Your task to perform on an android device: Play the last video I watched on Youtube Image 0: 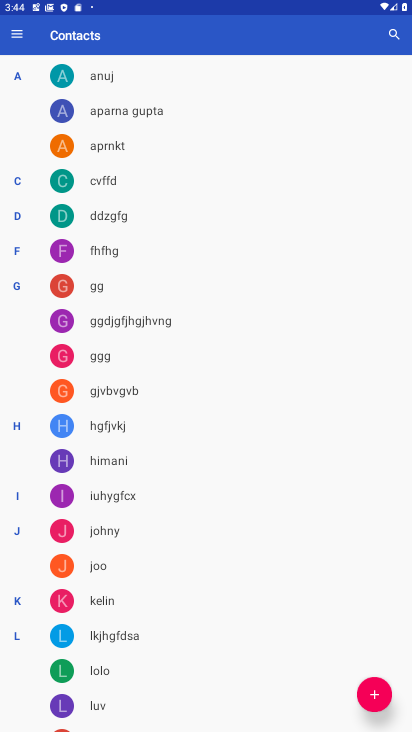
Step 0: press home button
Your task to perform on an android device: Play the last video I watched on Youtube Image 1: 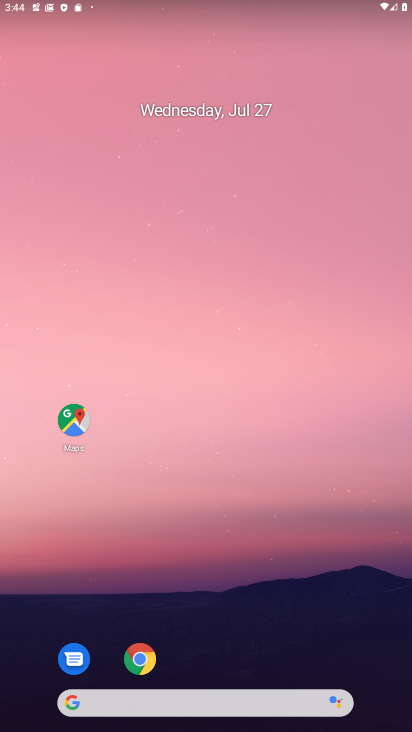
Step 1: drag from (195, 705) to (184, 299)
Your task to perform on an android device: Play the last video I watched on Youtube Image 2: 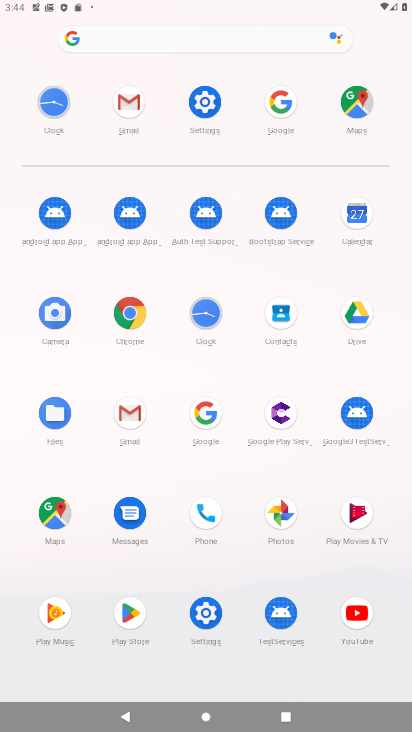
Step 2: click (358, 620)
Your task to perform on an android device: Play the last video I watched on Youtube Image 3: 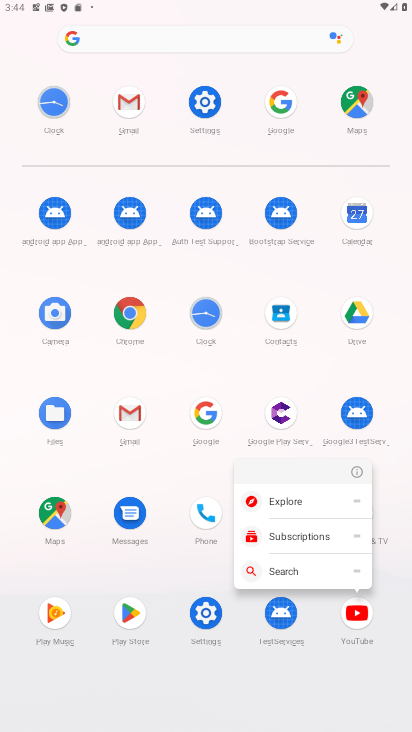
Step 3: click (343, 605)
Your task to perform on an android device: Play the last video I watched on Youtube Image 4: 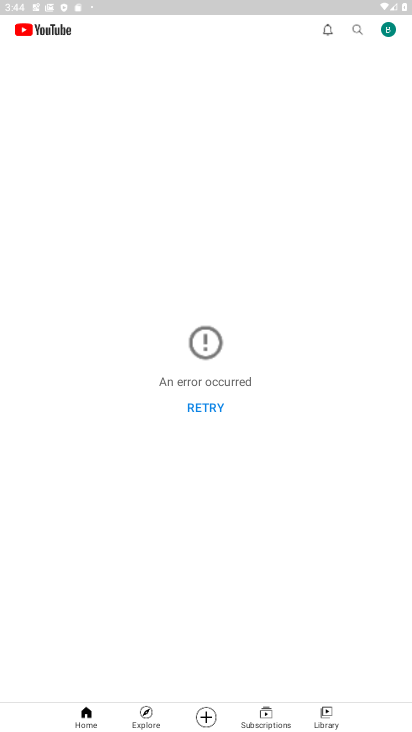
Step 4: click (329, 721)
Your task to perform on an android device: Play the last video I watched on Youtube Image 5: 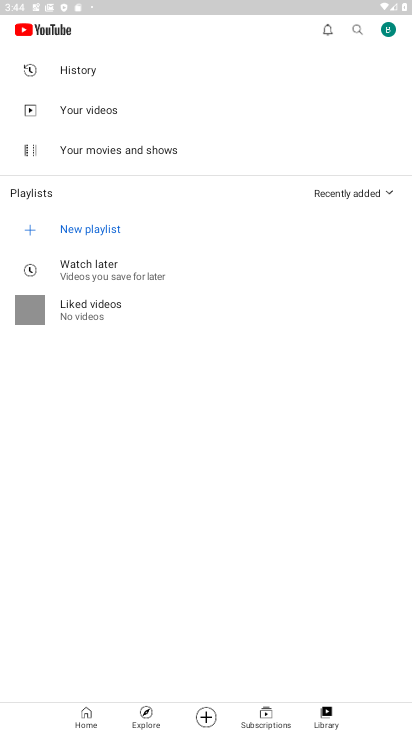
Step 5: click (97, 69)
Your task to perform on an android device: Play the last video I watched on Youtube Image 6: 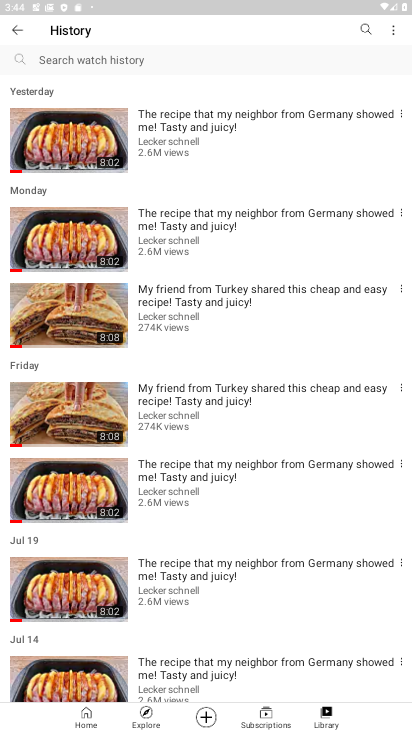
Step 6: click (174, 137)
Your task to perform on an android device: Play the last video I watched on Youtube Image 7: 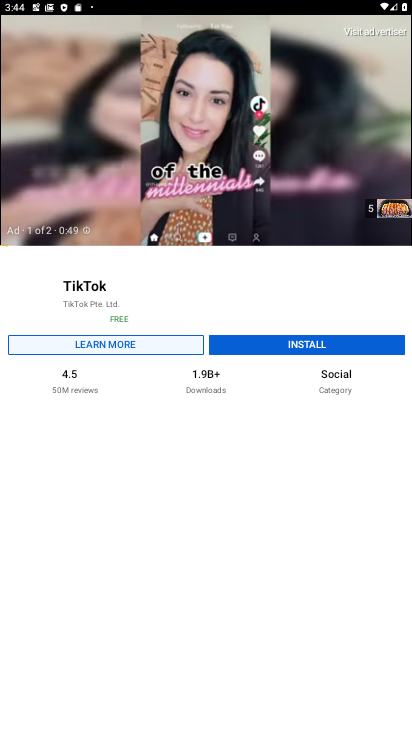
Step 7: task complete